Your task to perform on an android device: Go to network settings Image 0: 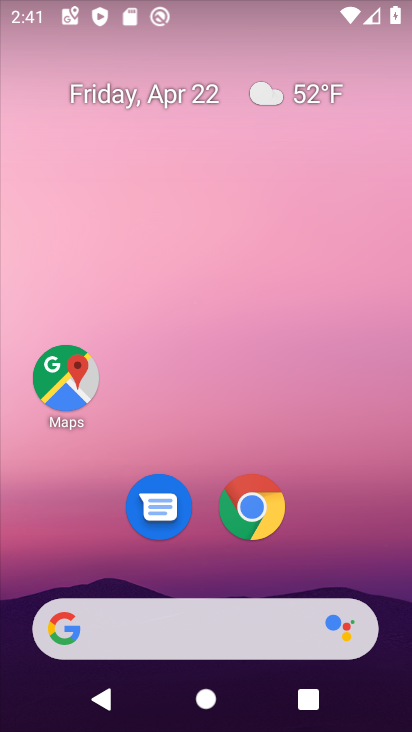
Step 0: drag from (183, 594) to (243, 5)
Your task to perform on an android device: Go to network settings Image 1: 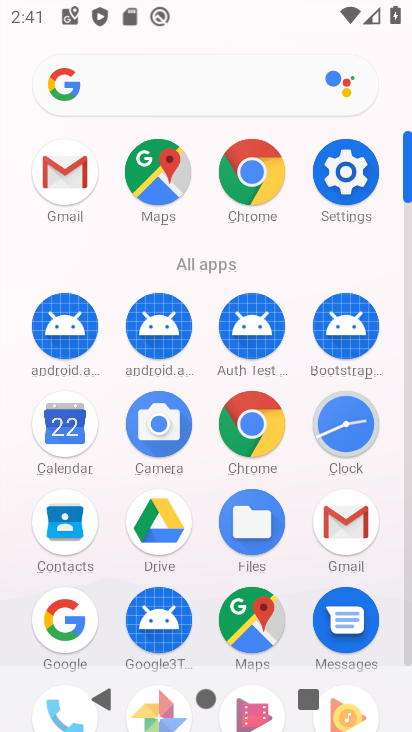
Step 1: click (350, 173)
Your task to perform on an android device: Go to network settings Image 2: 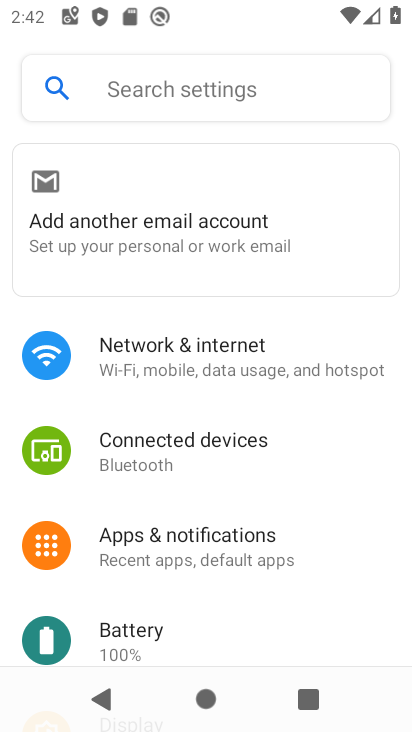
Step 2: click (224, 372)
Your task to perform on an android device: Go to network settings Image 3: 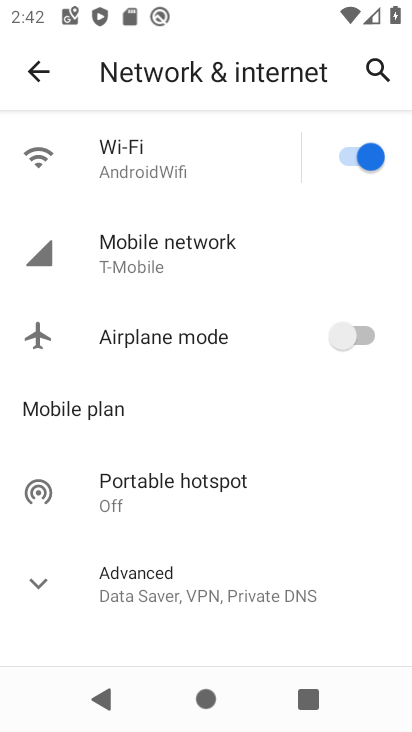
Step 3: click (174, 581)
Your task to perform on an android device: Go to network settings Image 4: 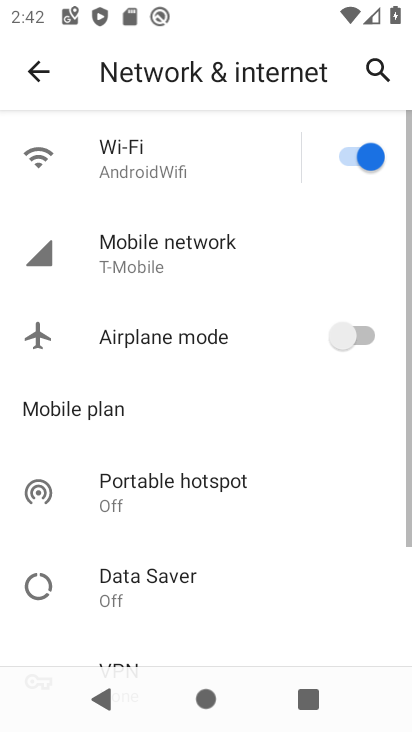
Step 4: click (203, 283)
Your task to perform on an android device: Go to network settings Image 5: 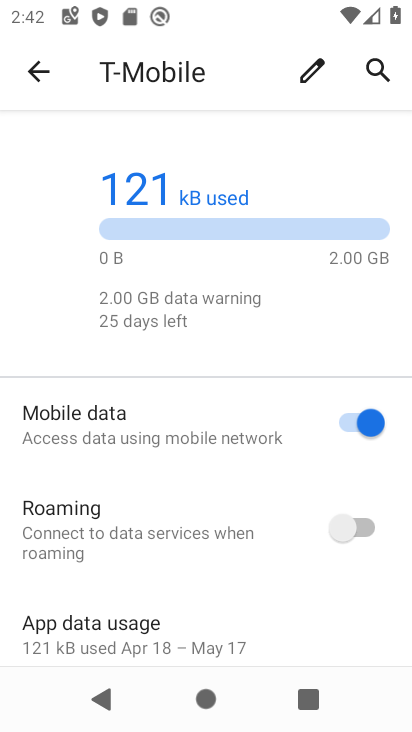
Step 5: task complete